Your task to perform on an android device: empty trash in google photos Image 0: 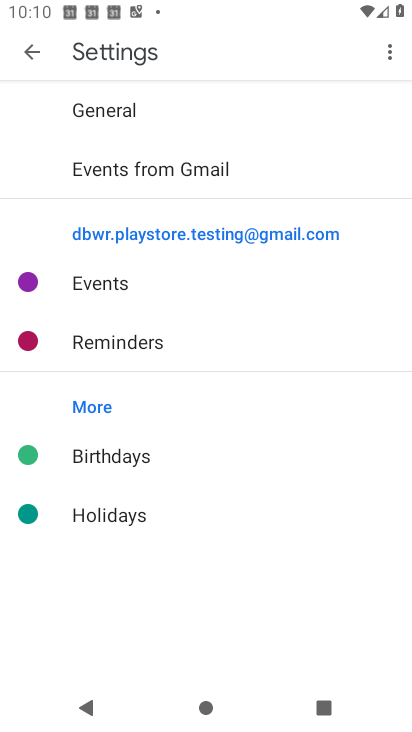
Step 0: press home button
Your task to perform on an android device: empty trash in google photos Image 1: 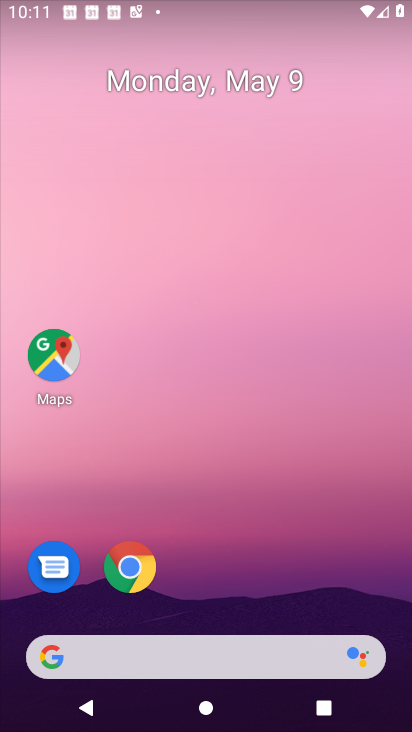
Step 1: drag from (202, 654) to (228, 152)
Your task to perform on an android device: empty trash in google photos Image 2: 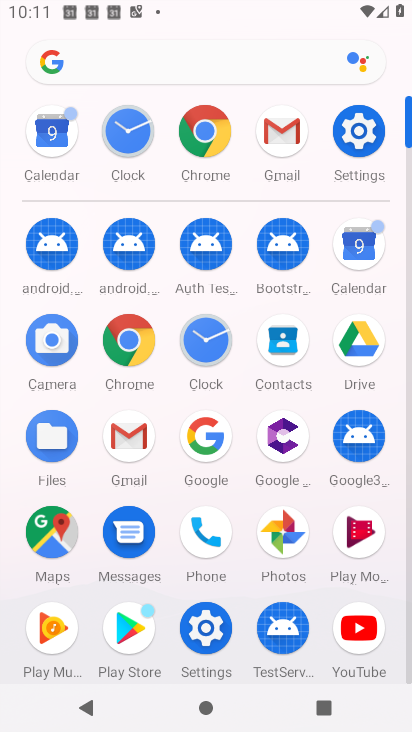
Step 2: click (261, 525)
Your task to perform on an android device: empty trash in google photos Image 3: 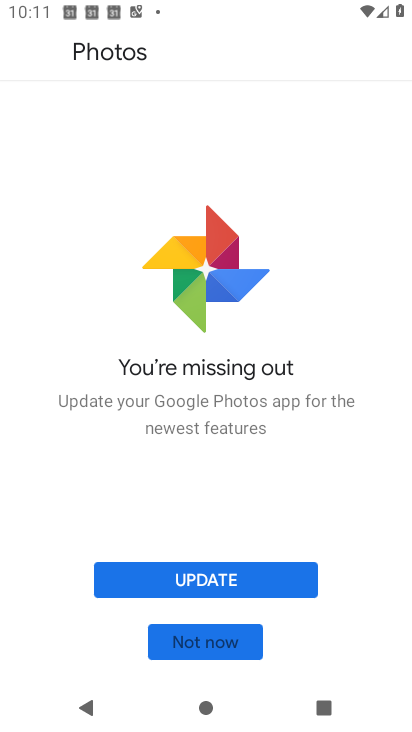
Step 3: click (216, 634)
Your task to perform on an android device: empty trash in google photos Image 4: 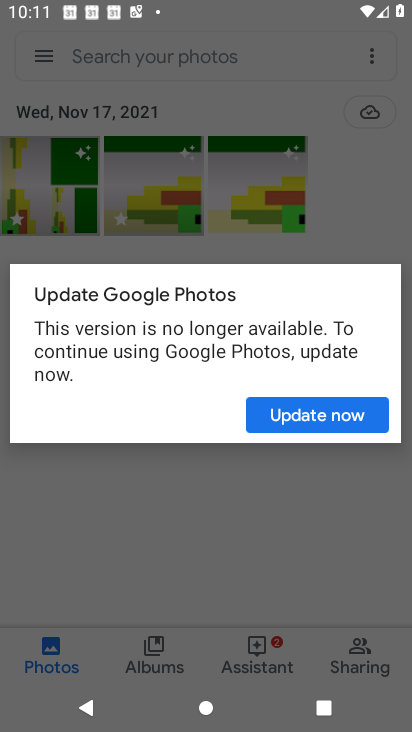
Step 4: click (309, 419)
Your task to perform on an android device: empty trash in google photos Image 5: 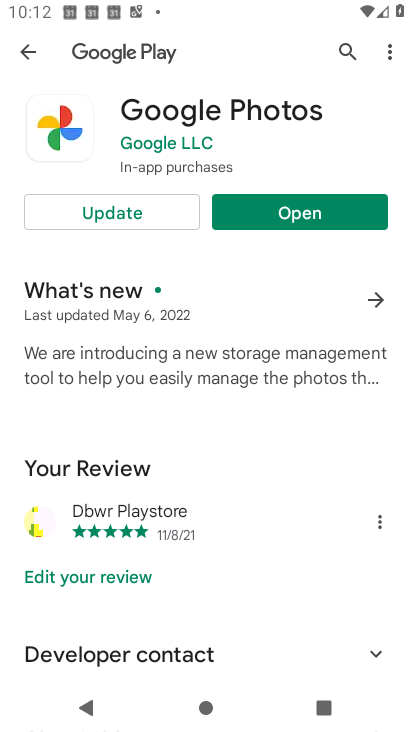
Step 5: click (129, 208)
Your task to perform on an android device: empty trash in google photos Image 6: 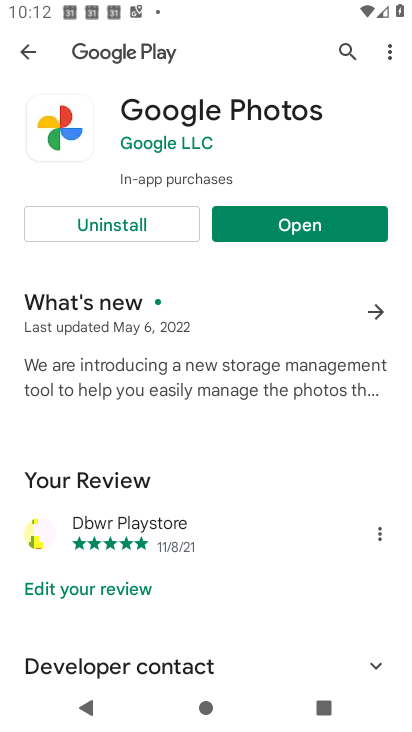
Step 6: click (285, 216)
Your task to perform on an android device: empty trash in google photos Image 7: 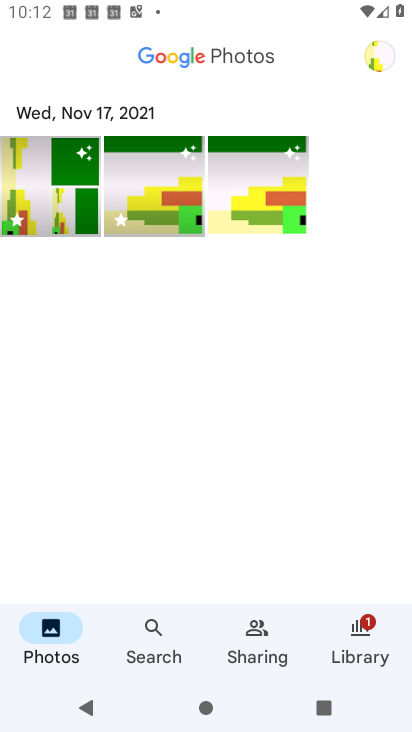
Step 7: click (364, 634)
Your task to perform on an android device: empty trash in google photos Image 8: 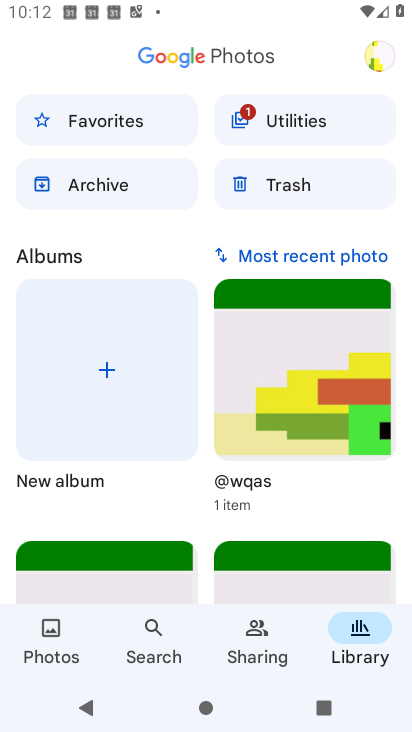
Step 8: click (298, 188)
Your task to perform on an android device: empty trash in google photos Image 9: 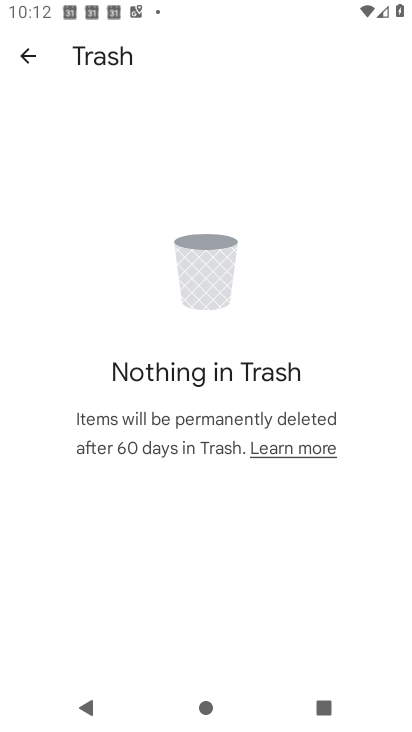
Step 9: task complete